Your task to perform on an android device: Open calendar and show me the first week of next month Image 0: 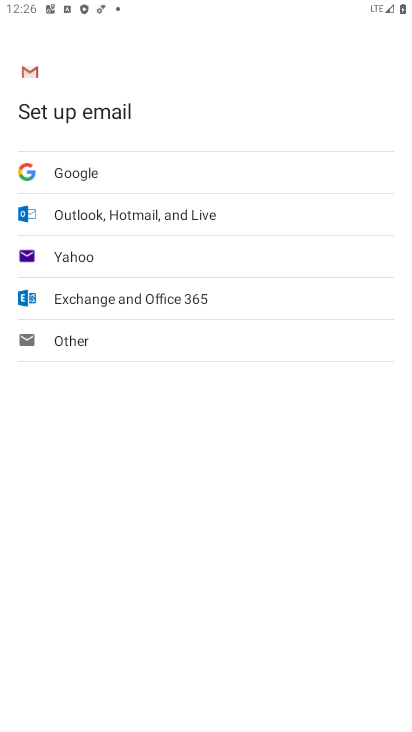
Step 0: drag from (379, 614) to (361, 96)
Your task to perform on an android device: Open calendar and show me the first week of next month Image 1: 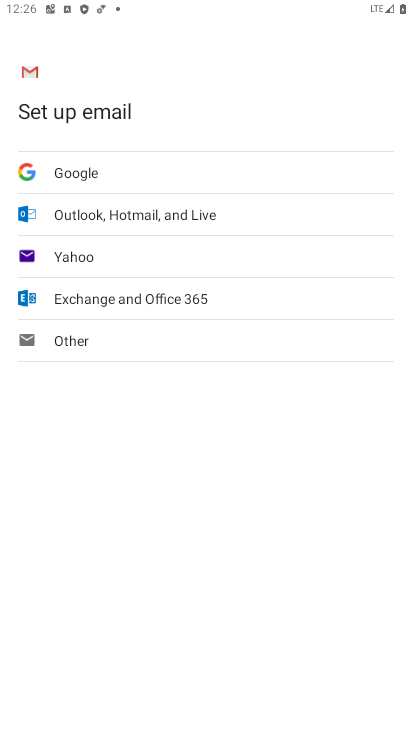
Step 1: press home button
Your task to perform on an android device: Open calendar and show me the first week of next month Image 2: 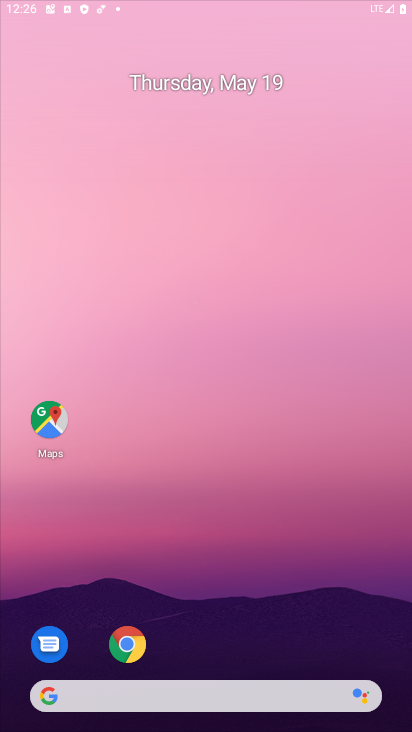
Step 2: drag from (334, 663) to (282, 81)
Your task to perform on an android device: Open calendar and show me the first week of next month Image 3: 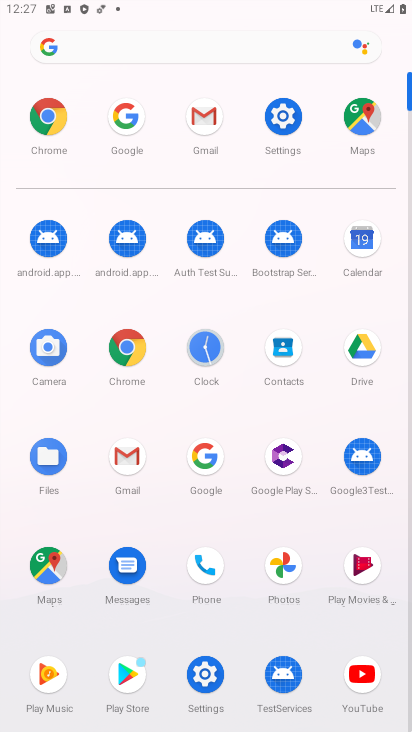
Step 3: click (362, 267)
Your task to perform on an android device: Open calendar and show me the first week of next month Image 4: 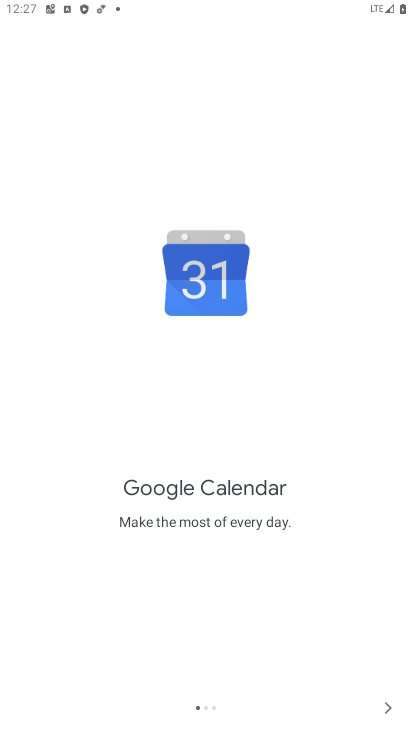
Step 4: click (388, 701)
Your task to perform on an android device: Open calendar and show me the first week of next month Image 5: 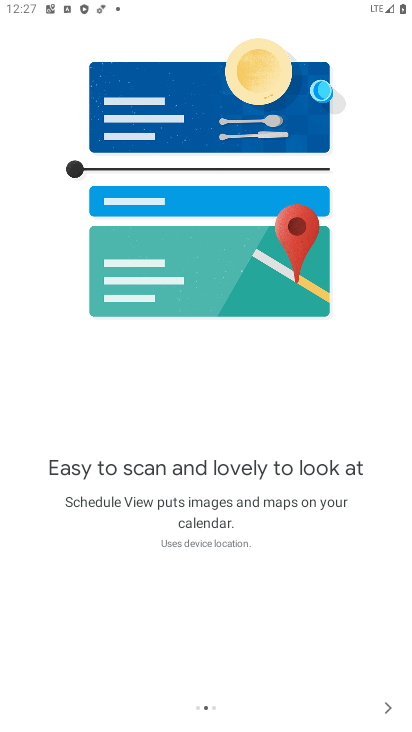
Step 5: click (388, 701)
Your task to perform on an android device: Open calendar and show me the first week of next month Image 6: 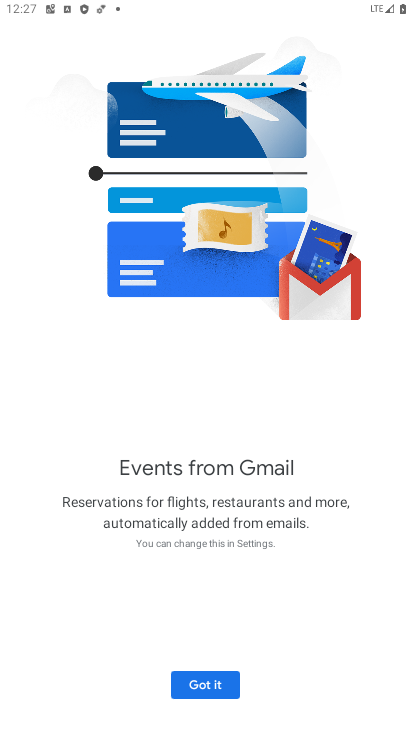
Step 6: click (388, 701)
Your task to perform on an android device: Open calendar and show me the first week of next month Image 7: 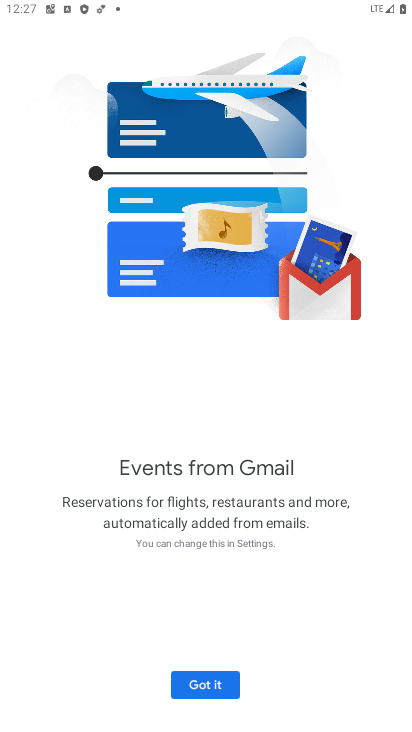
Step 7: click (184, 685)
Your task to perform on an android device: Open calendar and show me the first week of next month Image 8: 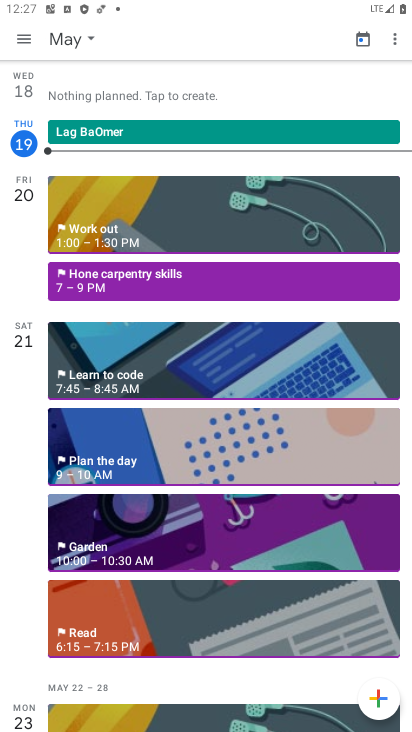
Step 8: click (65, 37)
Your task to perform on an android device: Open calendar and show me the first week of next month Image 9: 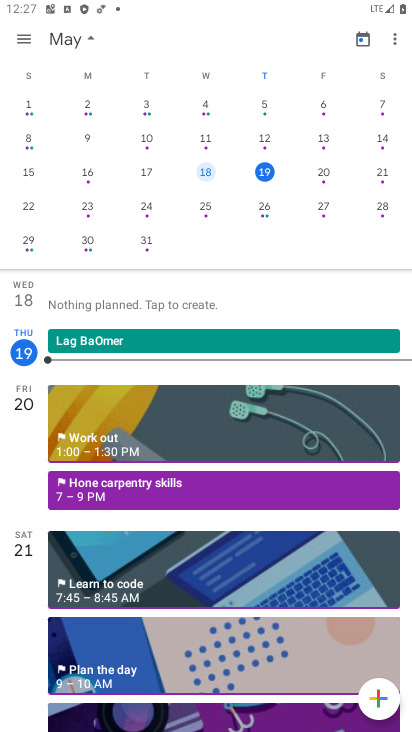
Step 9: drag from (372, 203) to (76, 178)
Your task to perform on an android device: Open calendar and show me the first week of next month Image 10: 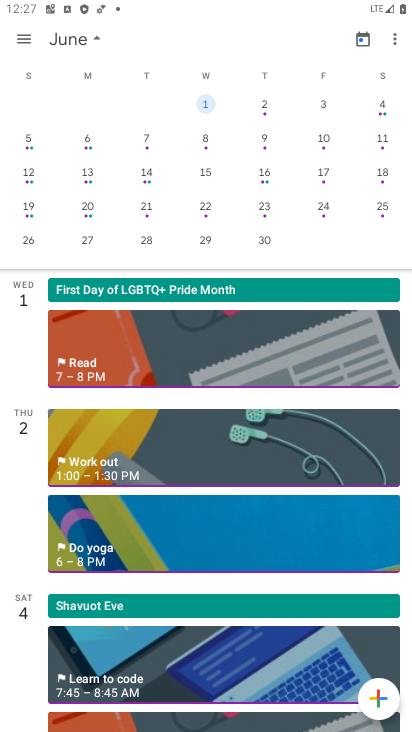
Step 10: click (24, 139)
Your task to perform on an android device: Open calendar and show me the first week of next month Image 11: 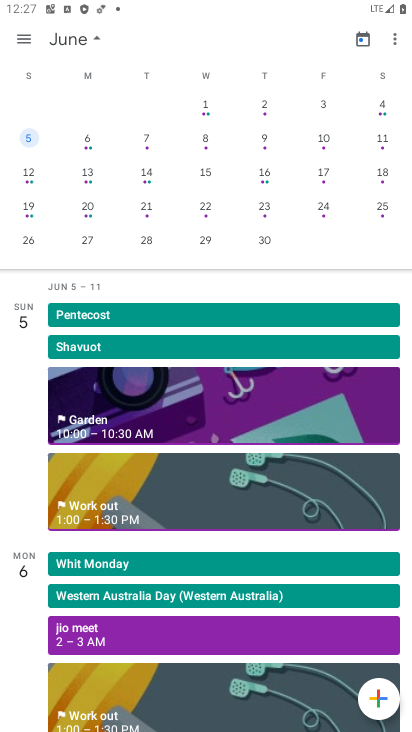
Step 11: task complete